Your task to perform on an android device: Open my contact list Image 0: 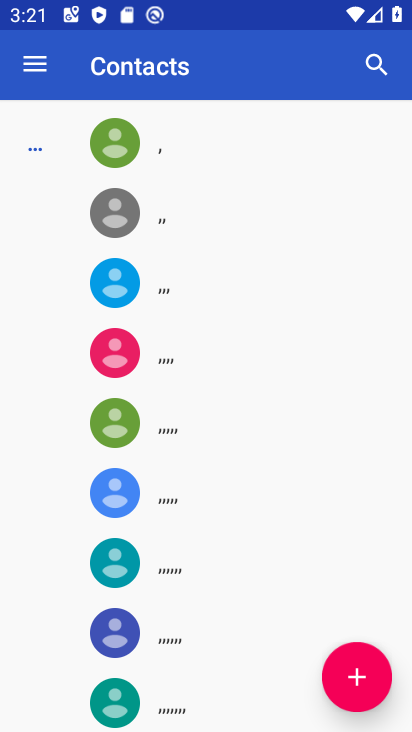
Step 0: press home button
Your task to perform on an android device: Open my contact list Image 1: 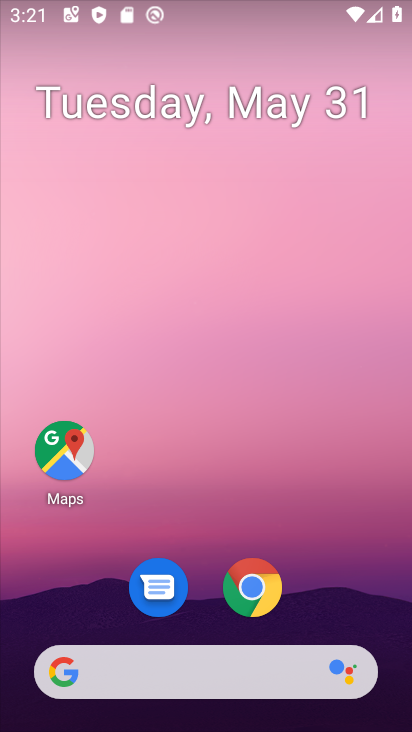
Step 1: drag from (208, 610) to (206, 117)
Your task to perform on an android device: Open my contact list Image 2: 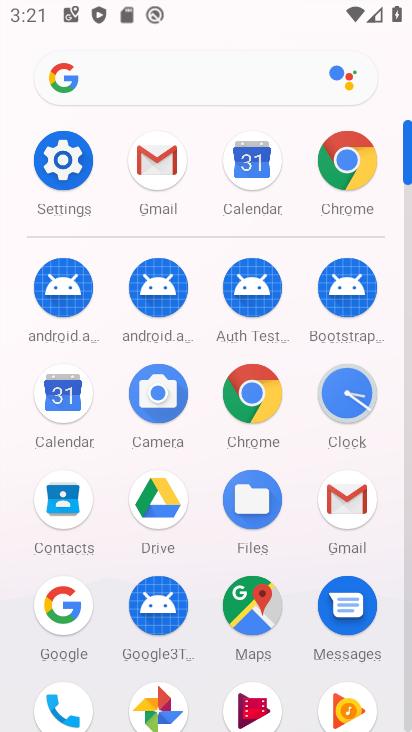
Step 2: click (61, 498)
Your task to perform on an android device: Open my contact list Image 3: 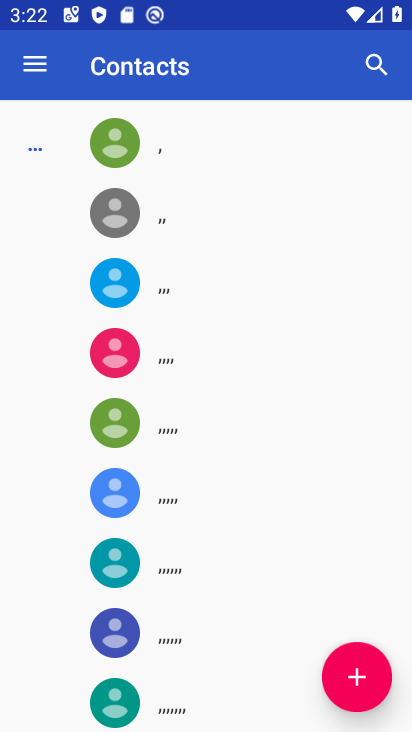
Step 3: task complete